Your task to perform on an android device: show emergency info Image 0: 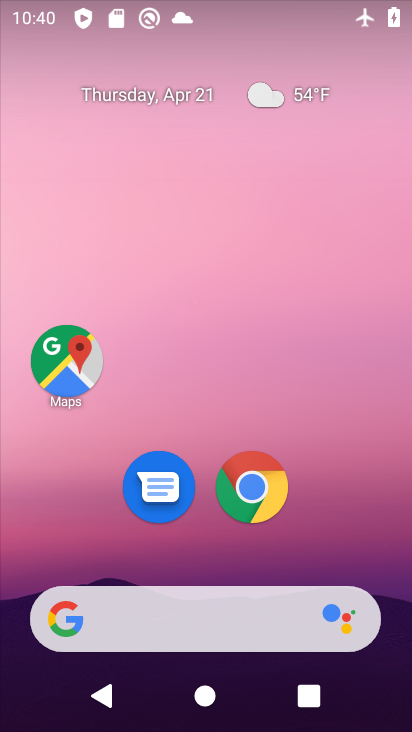
Step 0: drag from (339, 469) to (330, 92)
Your task to perform on an android device: show emergency info Image 1: 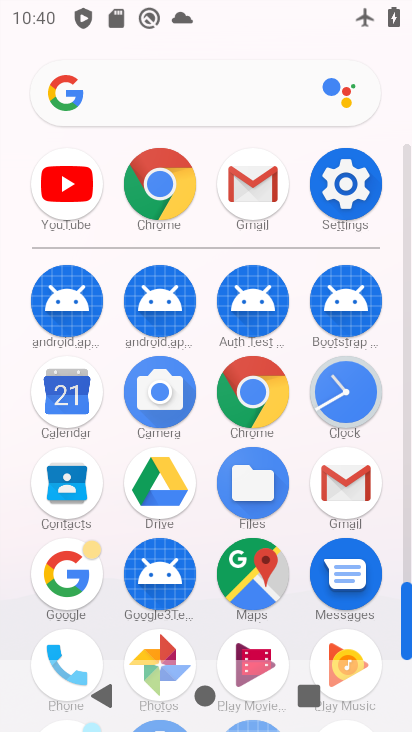
Step 1: click (360, 172)
Your task to perform on an android device: show emergency info Image 2: 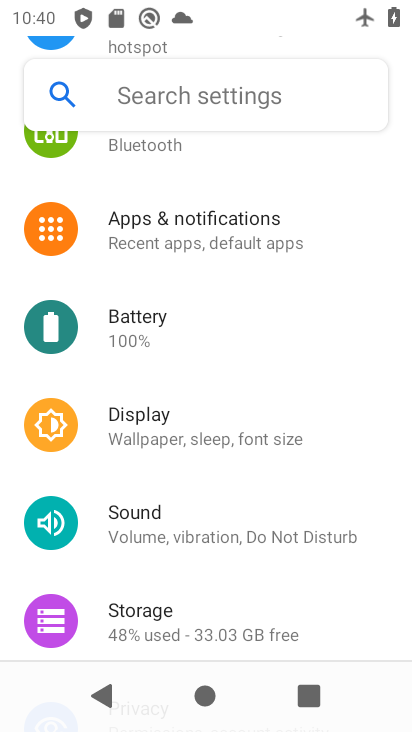
Step 2: drag from (246, 576) to (276, 146)
Your task to perform on an android device: show emergency info Image 3: 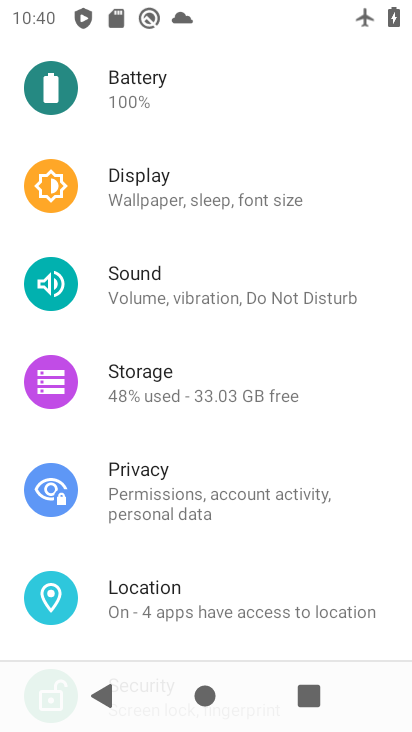
Step 3: drag from (314, 594) to (346, 178)
Your task to perform on an android device: show emergency info Image 4: 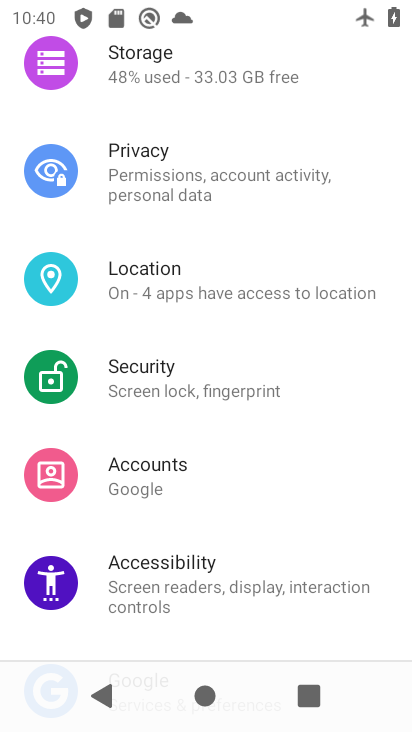
Step 4: drag from (244, 609) to (299, 245)
Your task to perform on an android device: show emergency info Image 5: 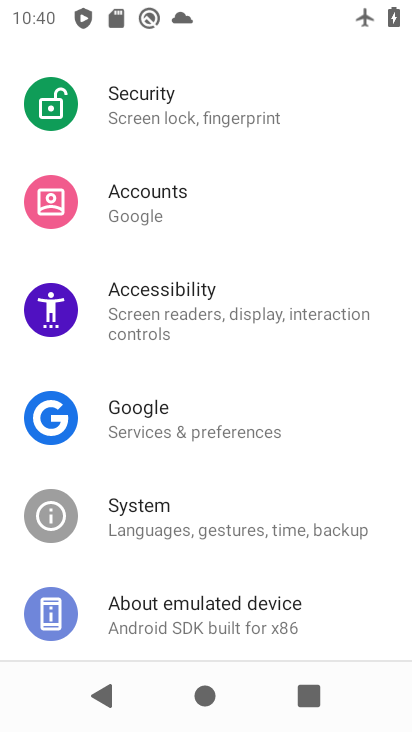
Step 5: click (238, 602)
Your task to perform on an android device: show emergency info Image 6: 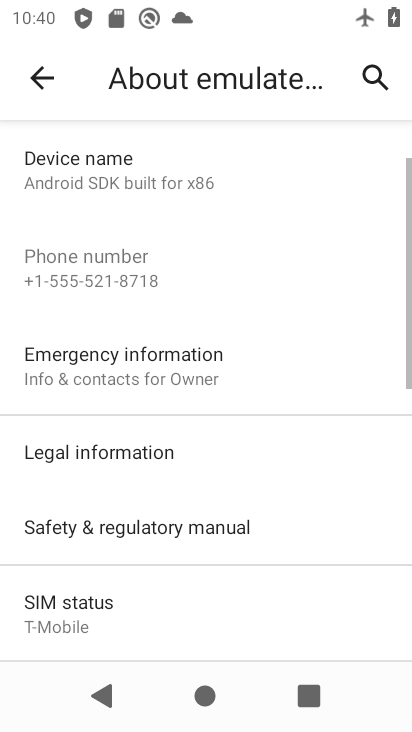
Step 6: drag from (254, 580) to (255, 308)
Your task to perform on an android device: show emergency info Image 7: 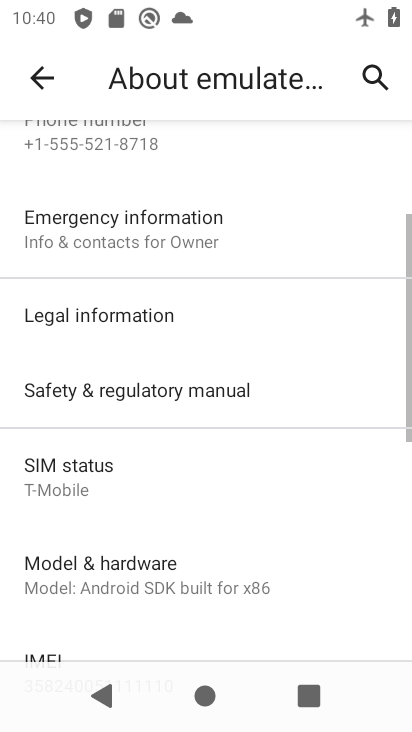
Step 7: click (176, 236)
Your task to perform on an android device: show emergency info Image 8: 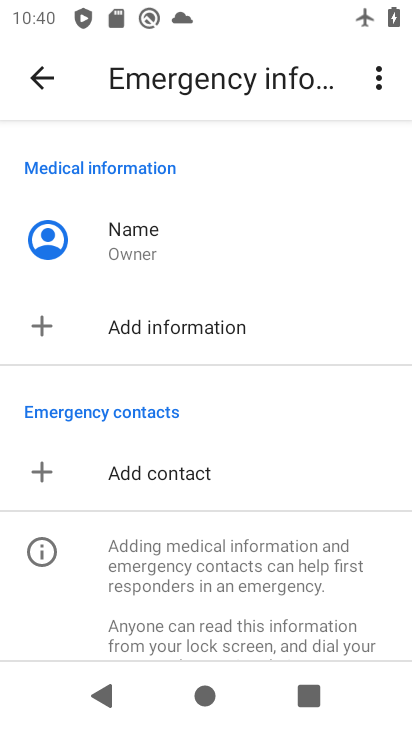
Step 8: task complete